Your task to perform on an android device: turn off notifications in google photos Image 0: 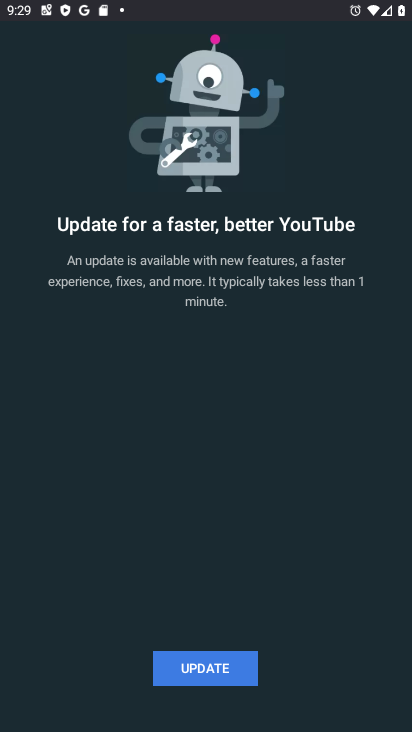
Step 0: press home button
Your task to perform on an android device: turn off notifications in google photos Image 1: 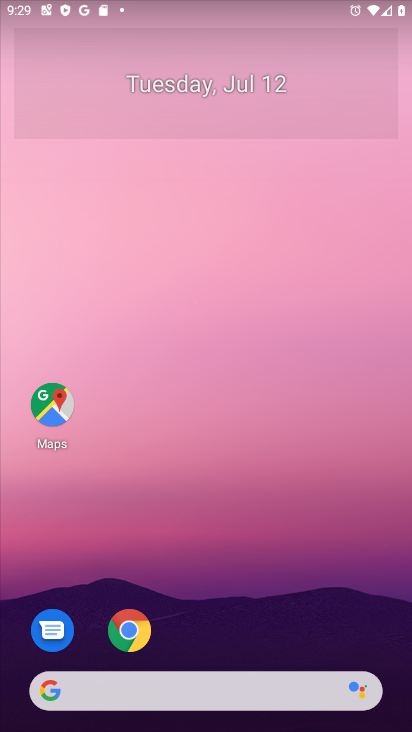
Step 1: drag from (224, 617) to (225, 128)
Your task to perform on an android device: turn off notifications in google photos Image 2: 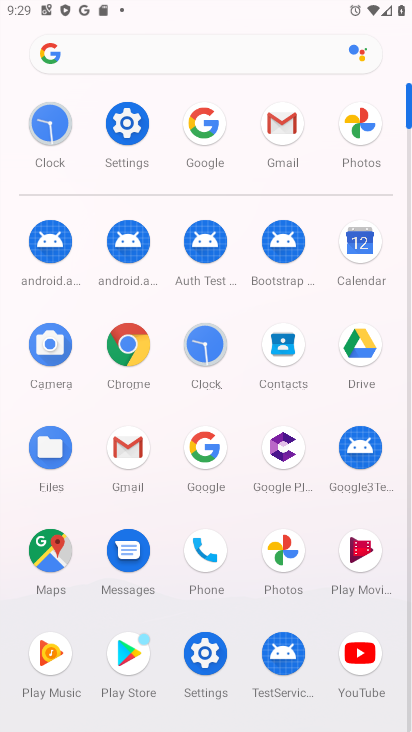
Step 2: click (283, 553)
Your task to perform on an android device: turn off notifications in google photos Image 3: 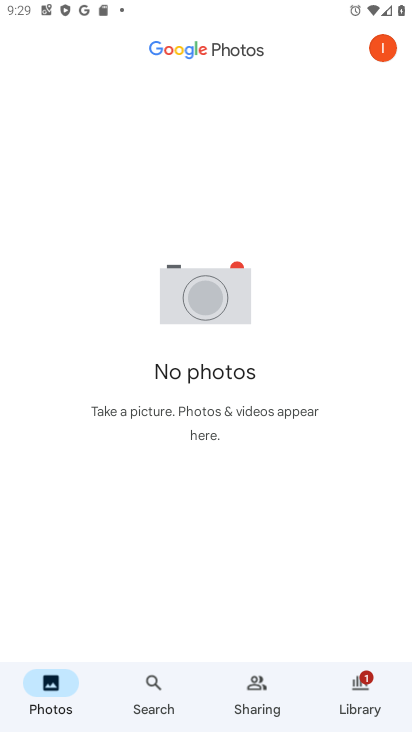
Step 3: click (392, 45)
Your task to perform on an android device: turn off notifications in google photos Image 4: 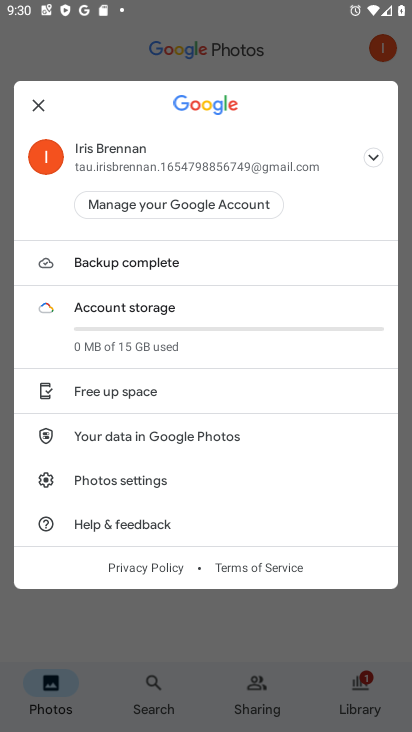
Step 4: click (136, 482)
Your task to perform on an android device: turn off notifications in google photos Image 5: 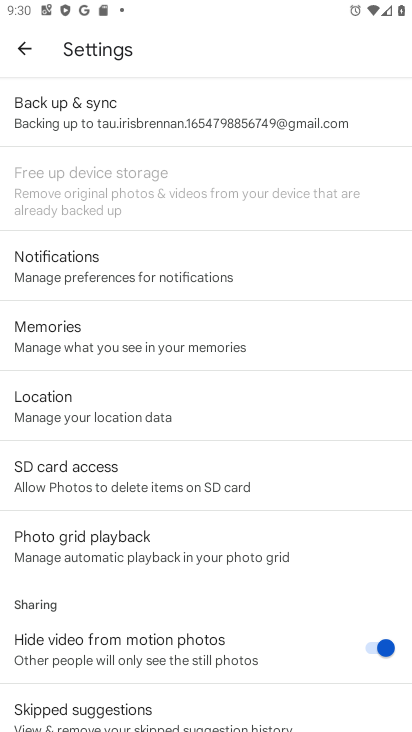
Step 5: click (95, 267)
Your task to perform on an android device: turn off notifications in google photos Image 6: 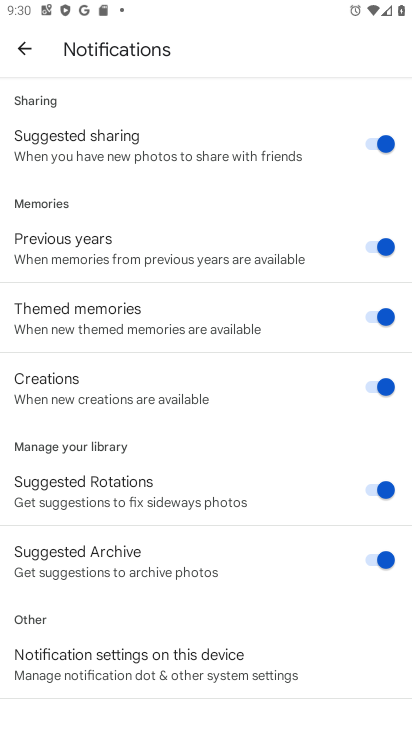
Step 6: click (228, 618)
Your task to perform on an android device: turn off notifications in google photos Image 7: 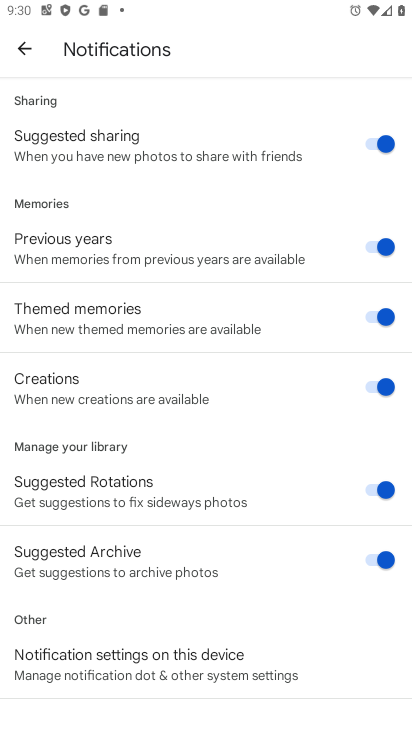
Step 7: drag from (118, 97) to (151, 401)
Your task to perform on an android device: turn off notifications in google photos Image 8: 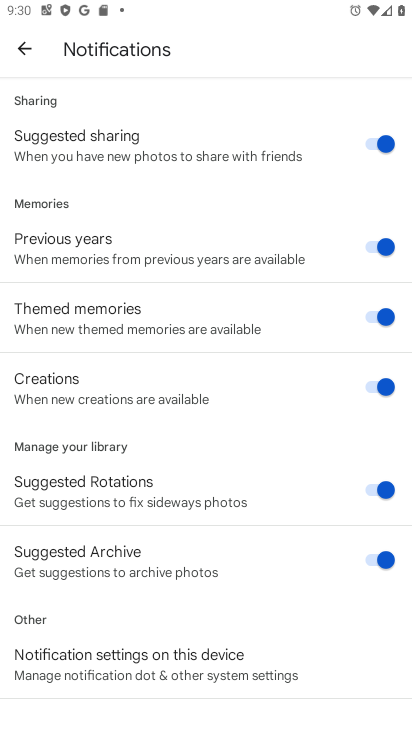
Step 8: click (71, 682)
Your task to perform on an android device: turn off notifications in google photos Image 9: 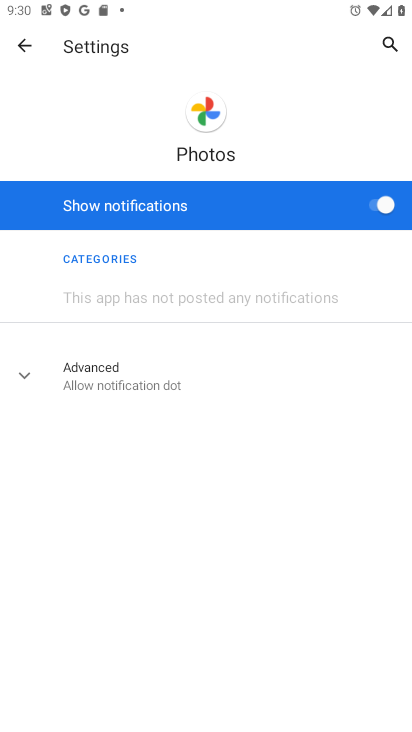
Step 9: click (389, 202)
Your task to perform on an android device: turn off notifications in google photos Image 10: 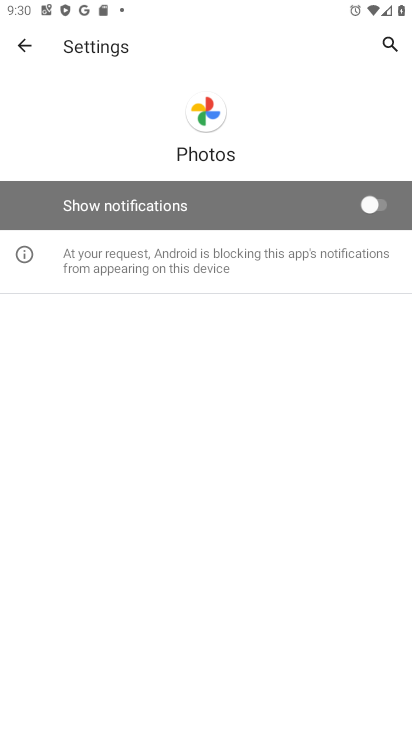
Step 10: task complete